Your task to perform on an android device: Open Reddit.com Image 0: 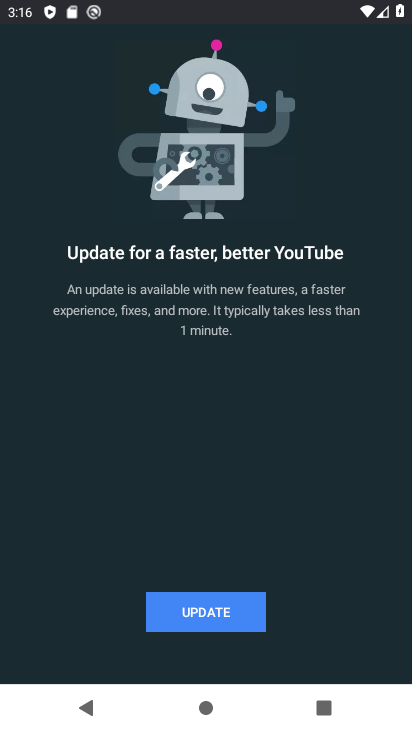
Step 0: press back button
Your task to perform on an android device: Open Reddit.com Image 1: 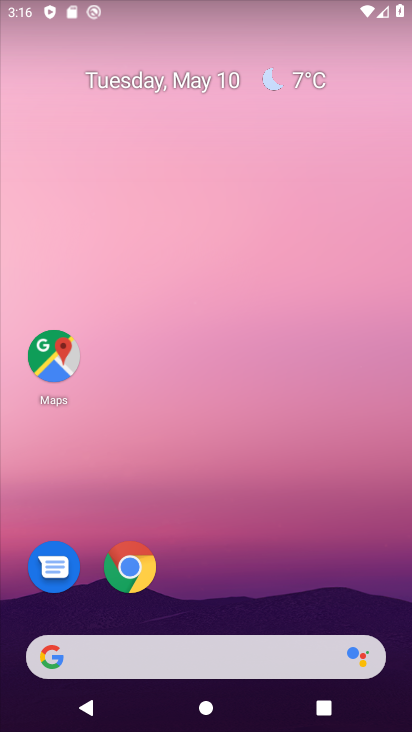
Step 1: click (128, 566)
Your task to perform on an android device: Open Reddit.com Image 2: 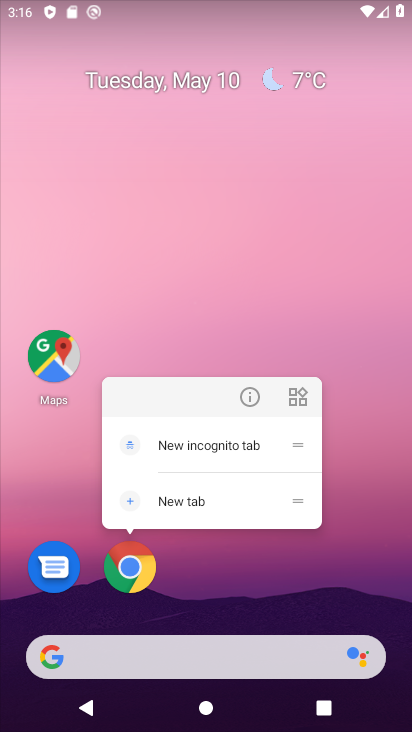
Step 2: click (128, 566)
Your task to perform on an android device: Open Reddit.com Image 3: 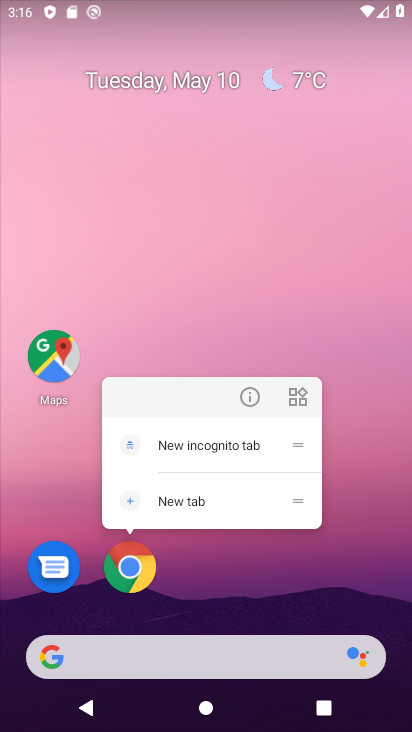
Step 3: click (128, 566)
Your task to perform on an android device: Open Reddit.com Image 4: 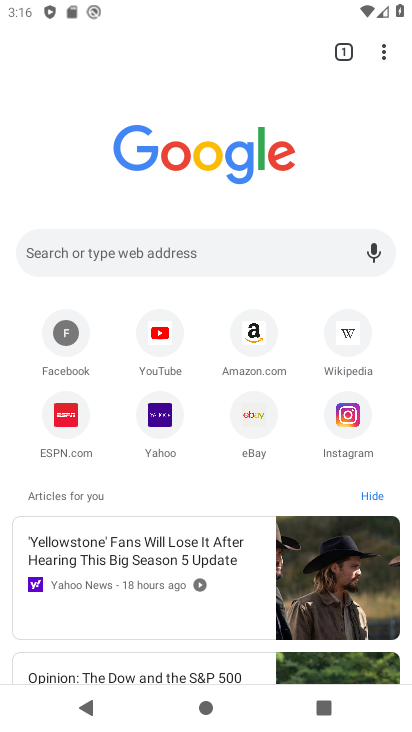
Step 4: click (202, 240)
Your task to perform on an android device: Open Reddit.com Image 5: 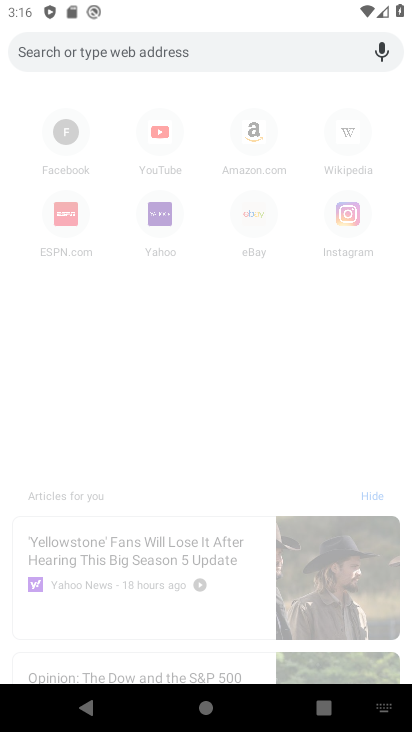
Step 5: type "Reddit.com"
Your task to perform on an android device: Open Reddit.com Image 6: 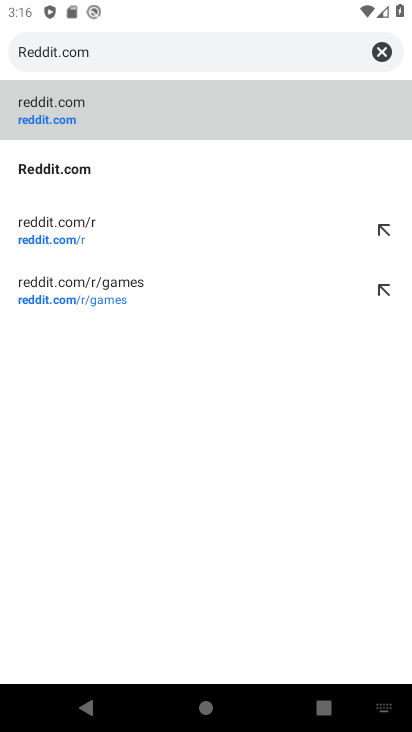
Step 6: click (74, 170)
Your task to perform on an android device: Open Reddit.com Image 7: 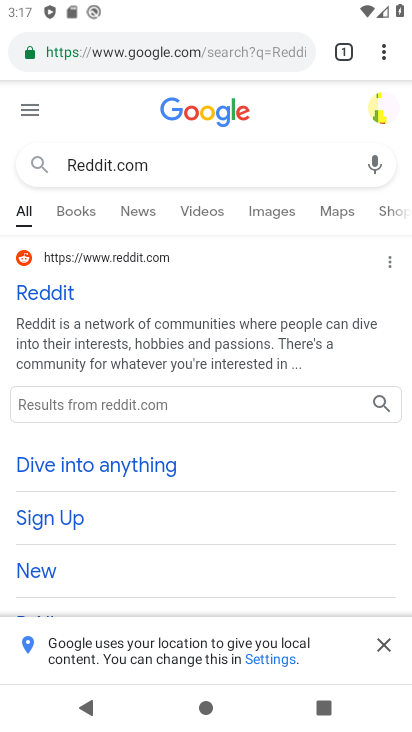
Step 7: click (47, 299)
Your task to perform on an android device: Open Reddit.com Image 8: 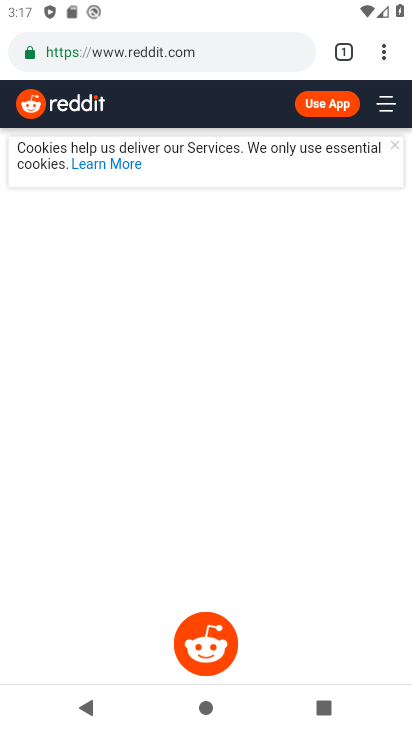
Step 8: task complete